Your task to perform on an android device: check data usage Image 0: 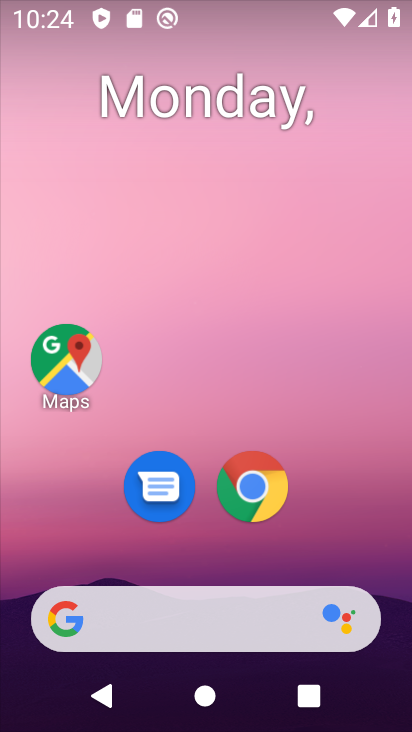
Step 0: drag from (31, 524) to (170, 161)
Your task to perform on an android device: check data usage Image 1: 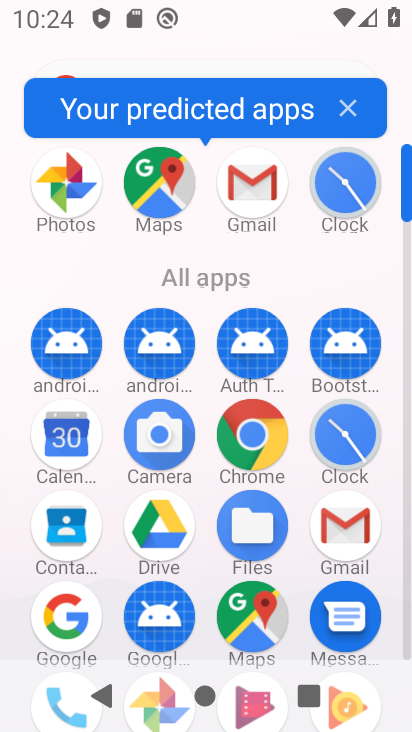
Step 1: drag from (59, 501) to (218, 154)
Your task to perform on an android device: check data usage Image 2: 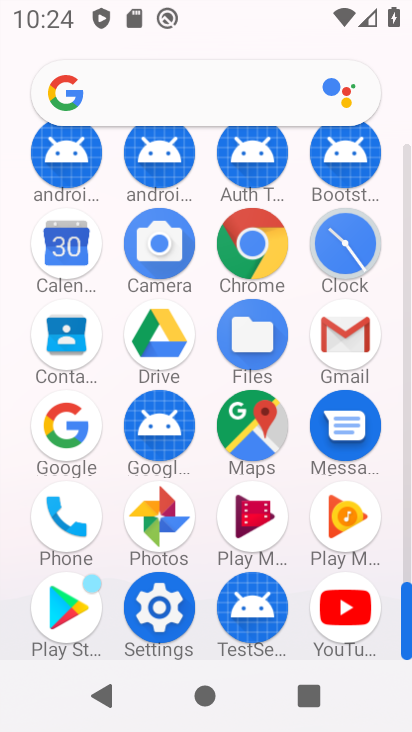
Step 2: click (149, 612)
Your task to perform on an android device: check data usage Image 3: 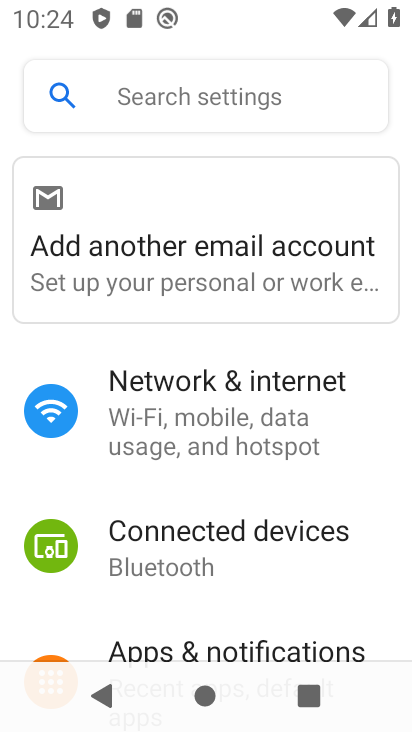
Step 3: click (168, 409)
Your task to perform on an android device: check data usage Image 4: 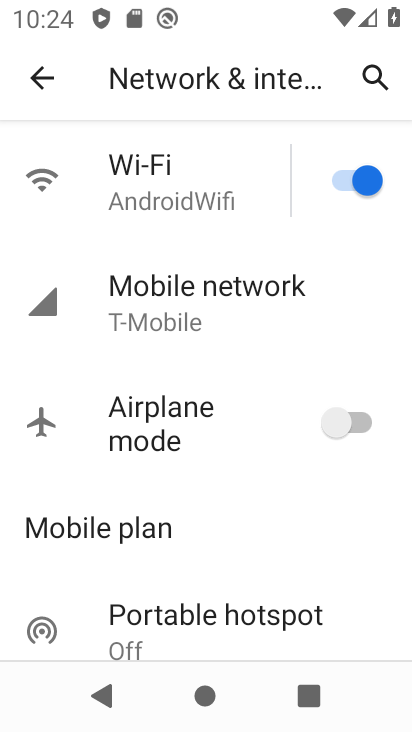
Step 4: click (159, 302)
Your task to perform on an android device: check data usage Image 5: 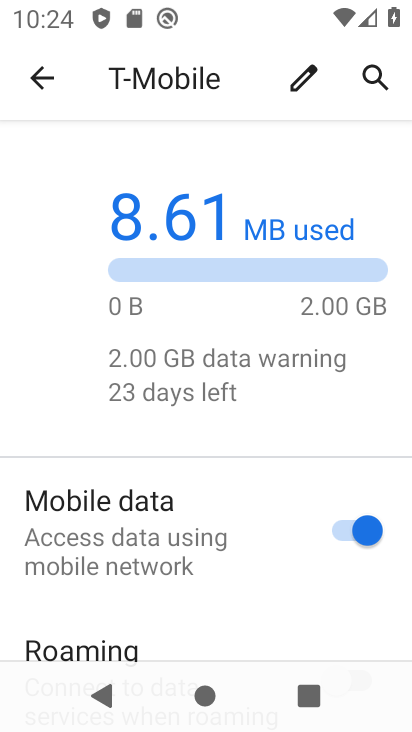
Step 5: task complete